Your task to perform on an android device: change keyboard looks Image 0: 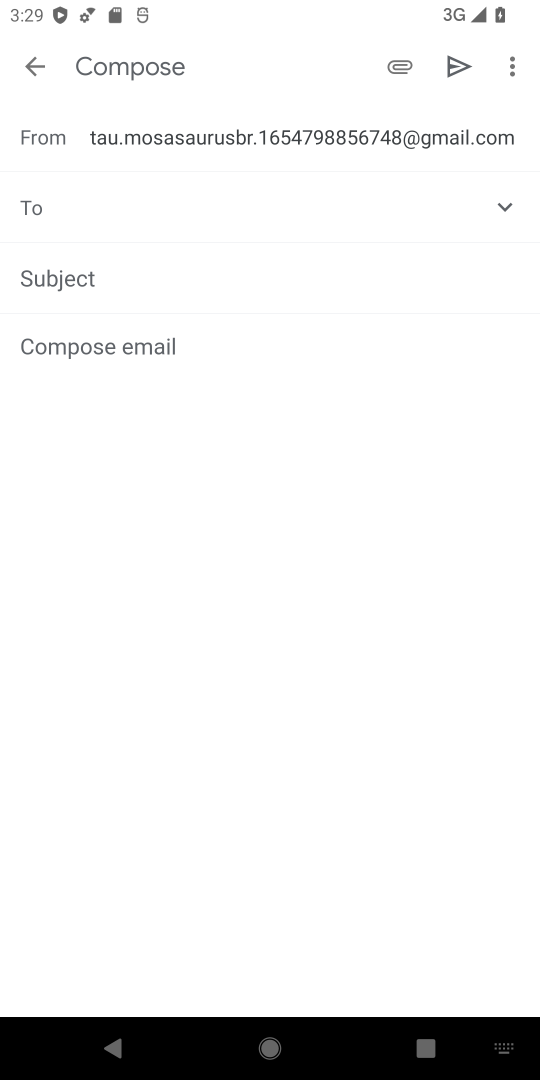
Step 0: press home button
Your task to perform on an android device: change keyboard looks Image 1: 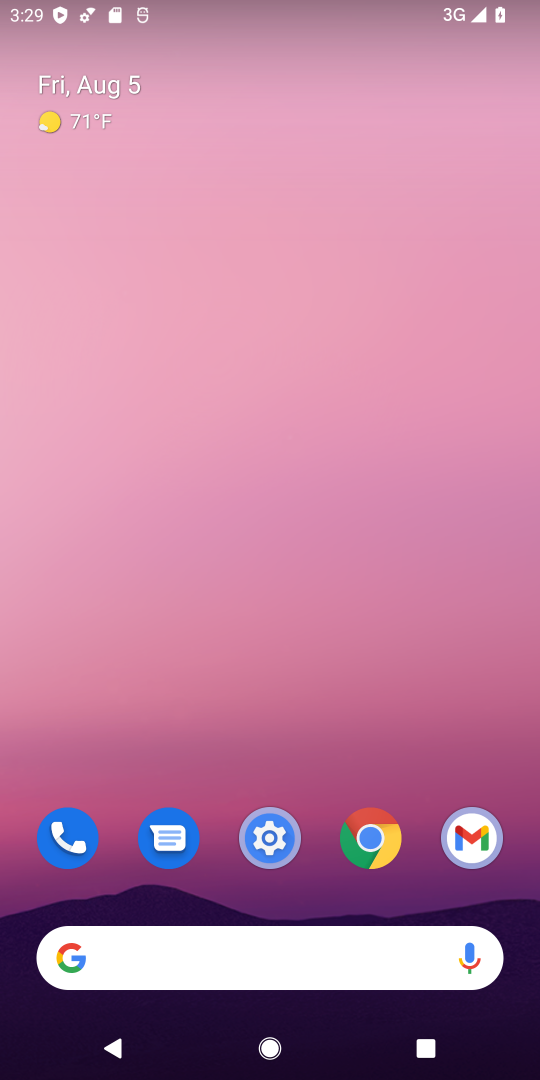
Step 1: drag from (314, 935) to (341, 299)
Your task to perform on an android device: change keyboard looks Image 2: 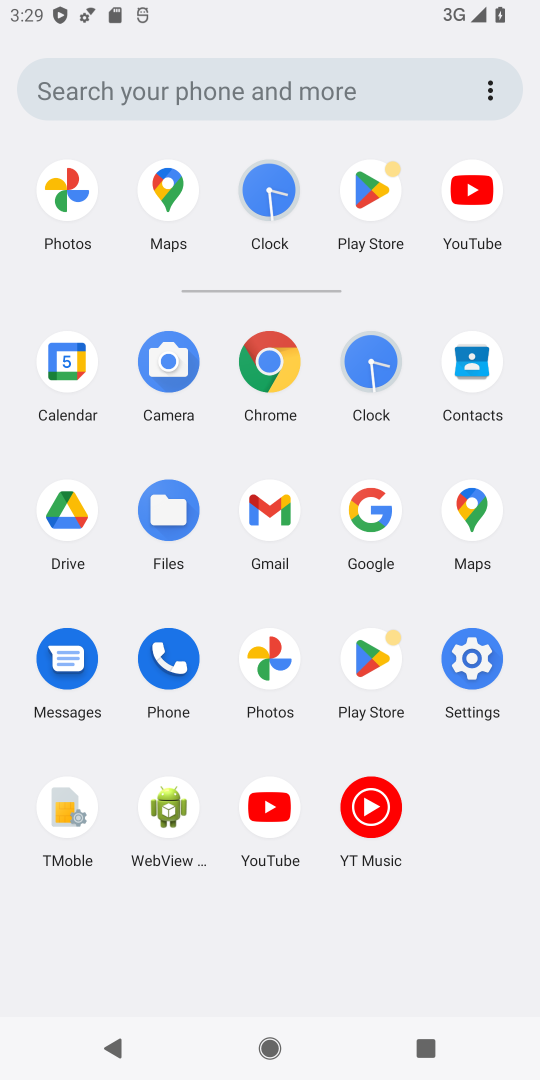
Step 2: click (483, 651)
Your task to perform on an android device: change keyboard looks Image 3: 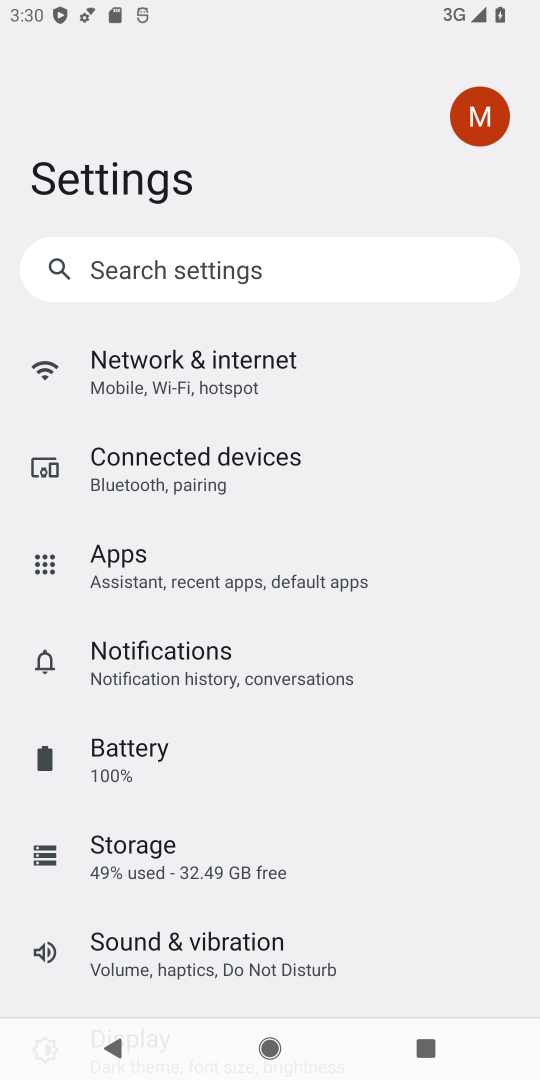
Step 3: drag from (232, 881) to (357, 316)
Your task to perform on an android device: change keyboard looks Image 4: 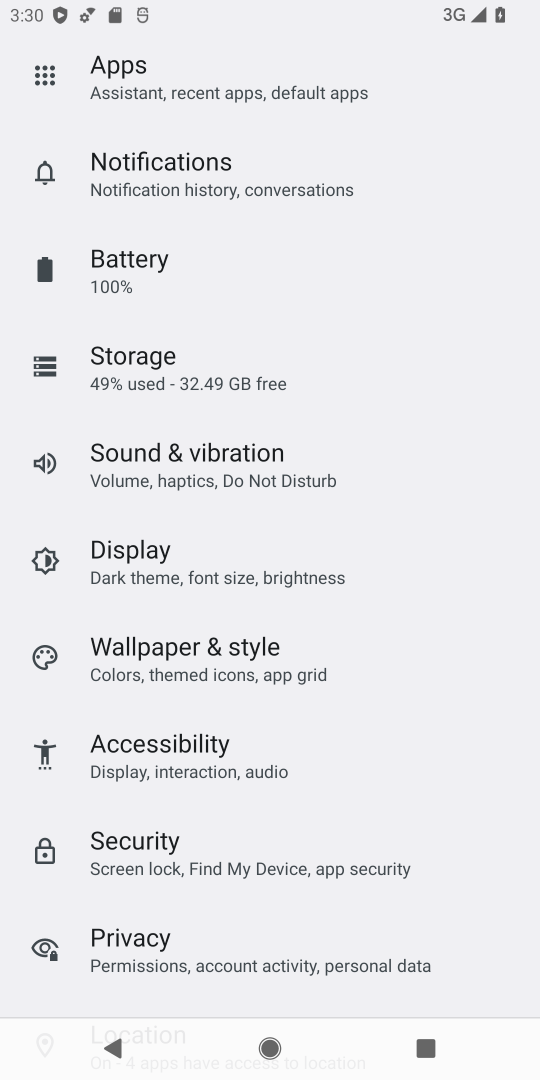
Step 4: drag from (202, 939) to (343, 252)
Your task to perform on an android device: change keyboard looks Image 5: 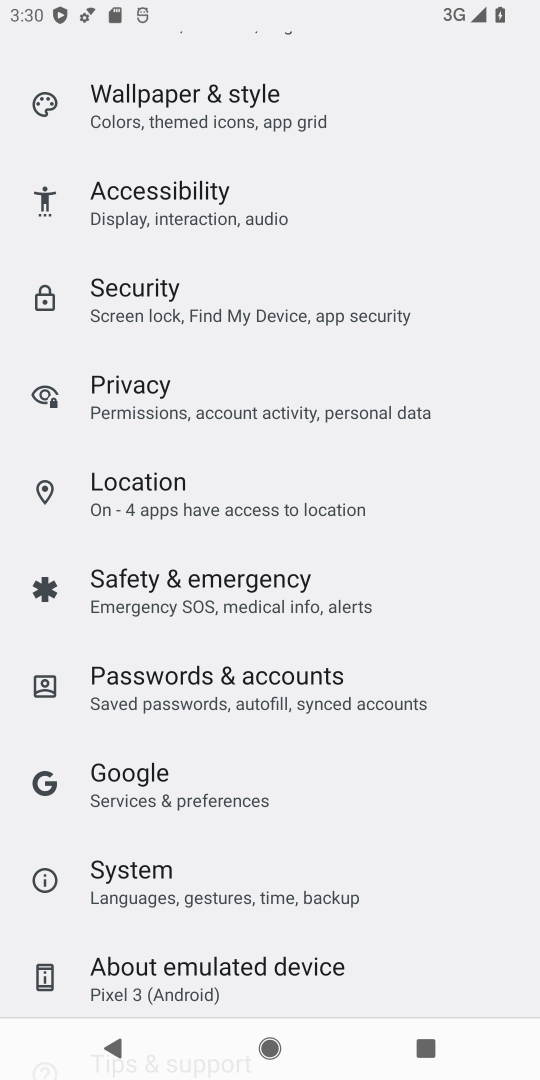
Step 5: click (229, 871)
Your task to perform on an android device: change keyboard looks Image 6: 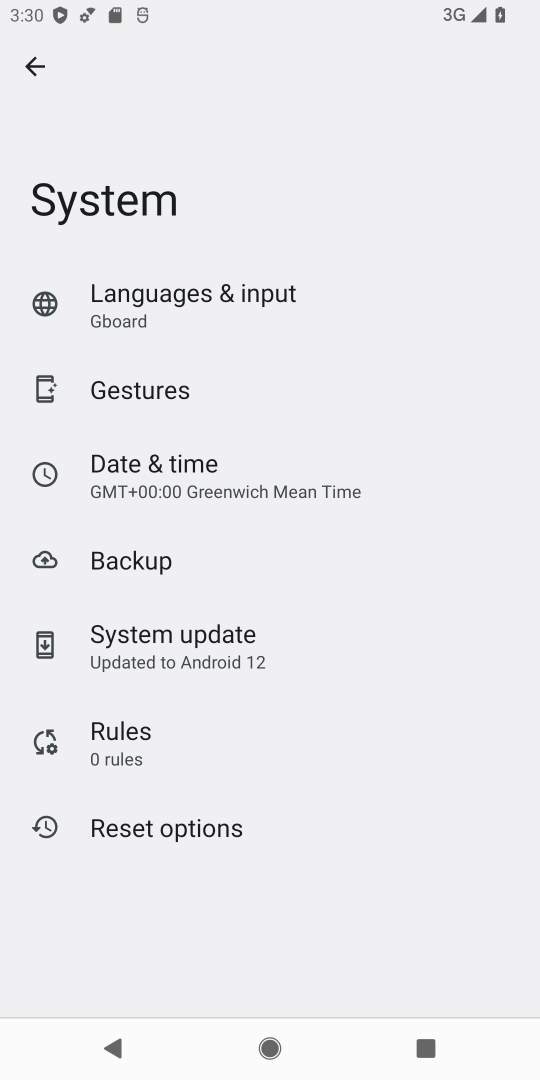
Step 6: click (198, 314)
Your task to perform on an android device: change keyboard looks Image 7: 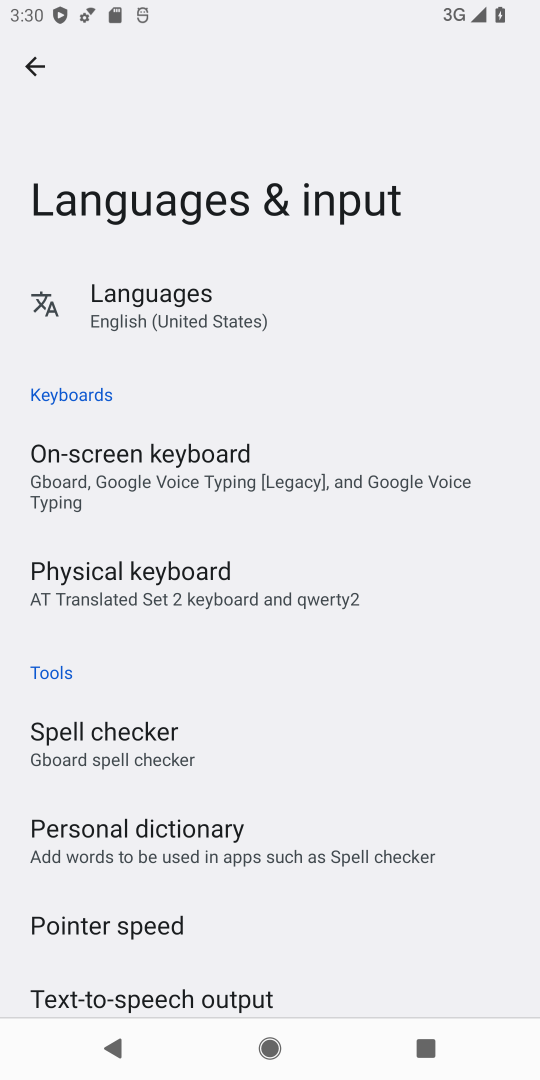
Step 7: click (156, 328)
Your task to perform on an android device: change keyboard looks Image 8: 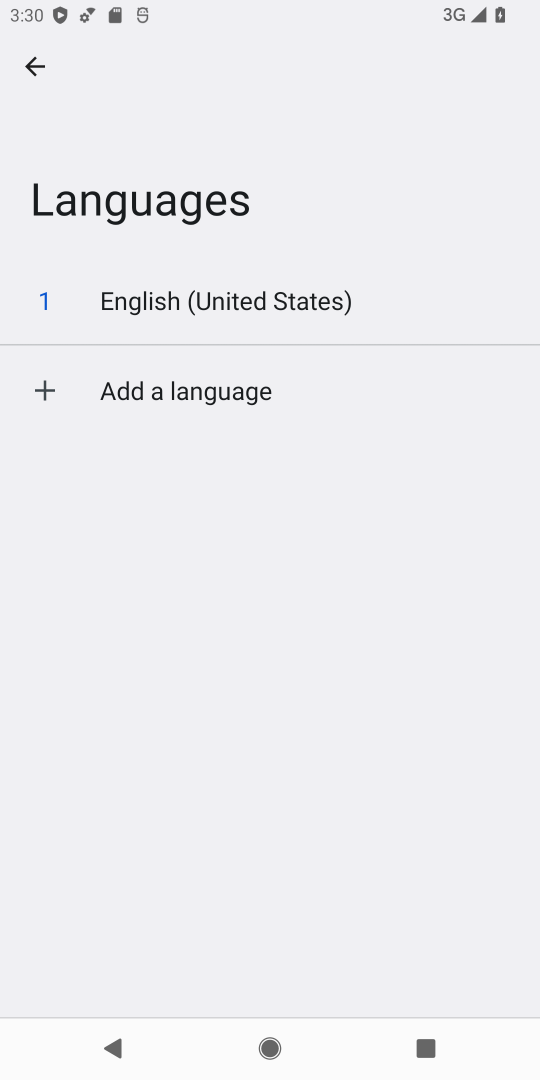
Step 8: click (27, 61)
Your task to perform on an android device: change keyboard looks Image 9: 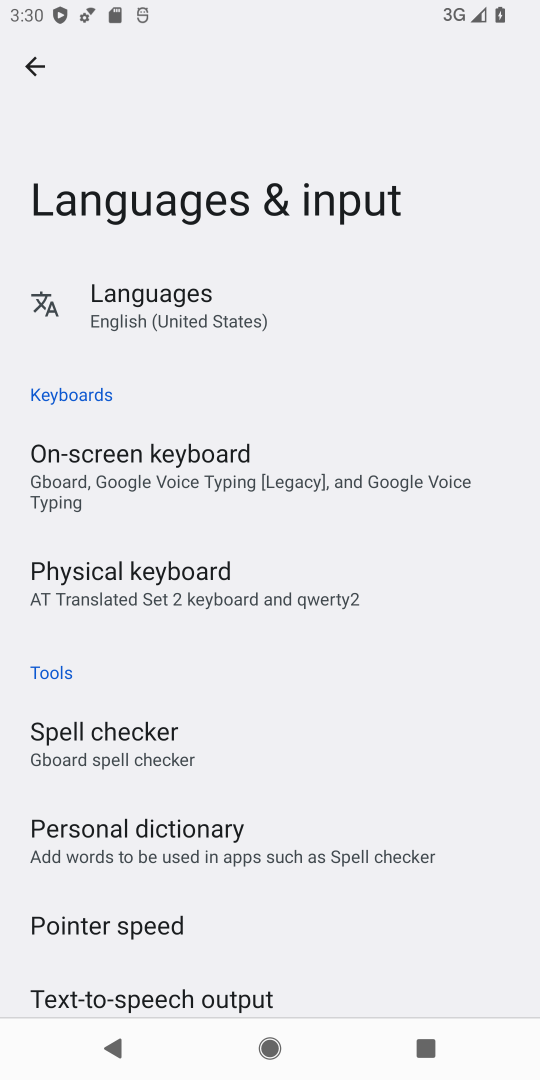
Step 9: click (195, 490)
Your task to perform on an android device: change keyboard looks Image 10: 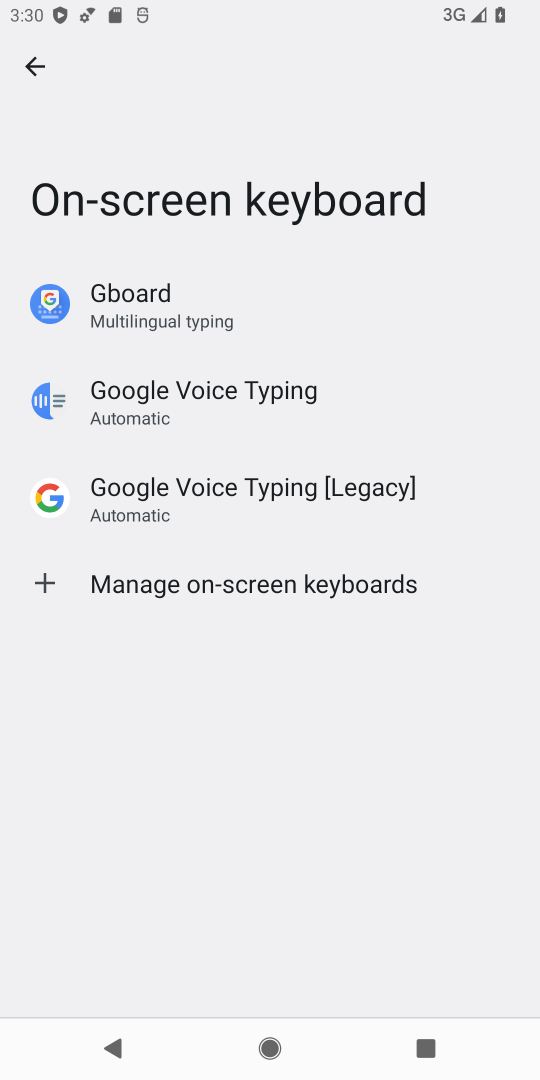
Step 10: click (163, 320)
Your task to perform on an android device: change keyboard looks Image 11: 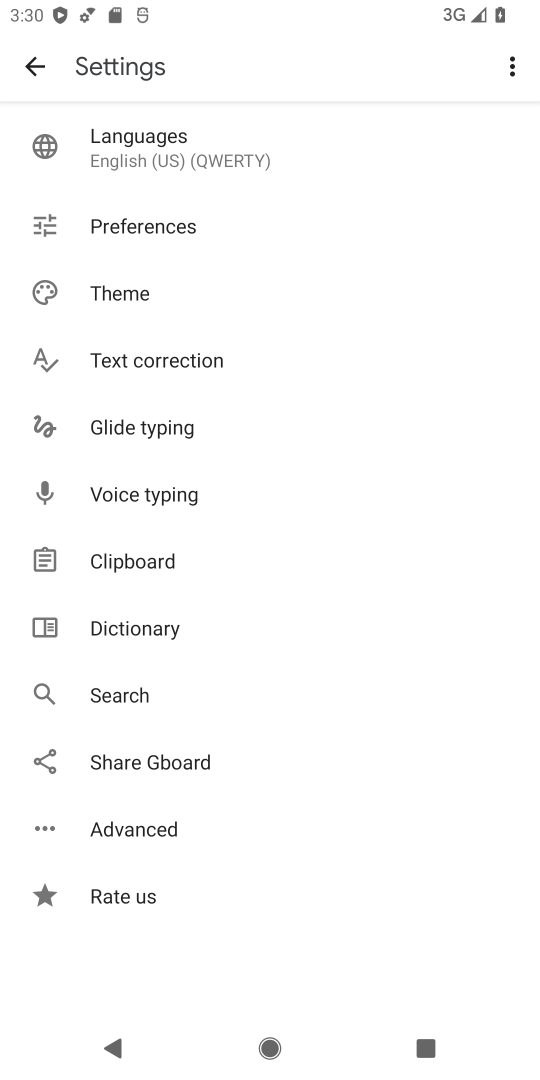
Step 11: click (130, 289)
Your task to perform on an android device: change keyboard looks Image 12: 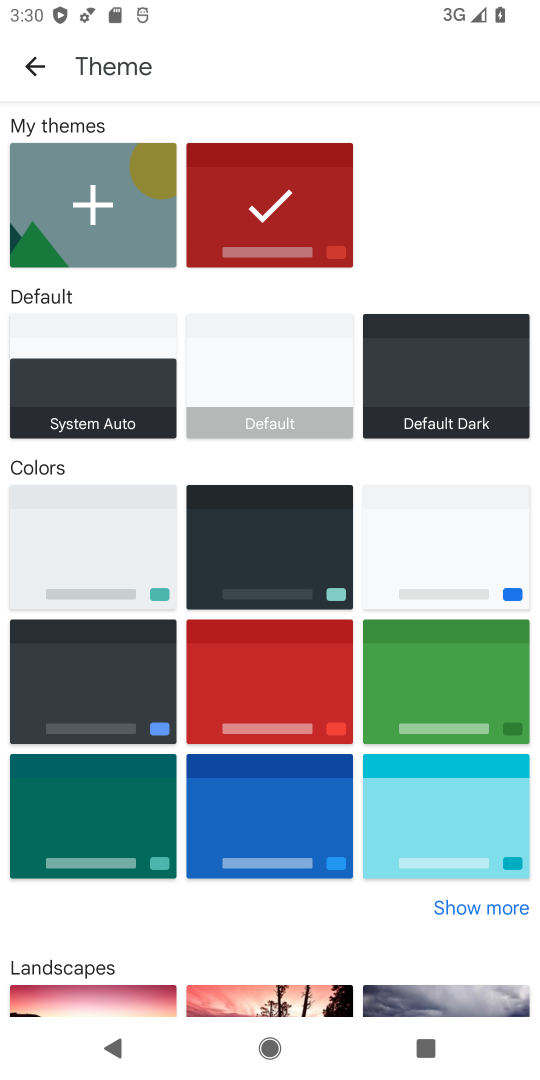
Step 12: click (264, 836)
Your task to perform on an android device: change keyboard looks Image 13: 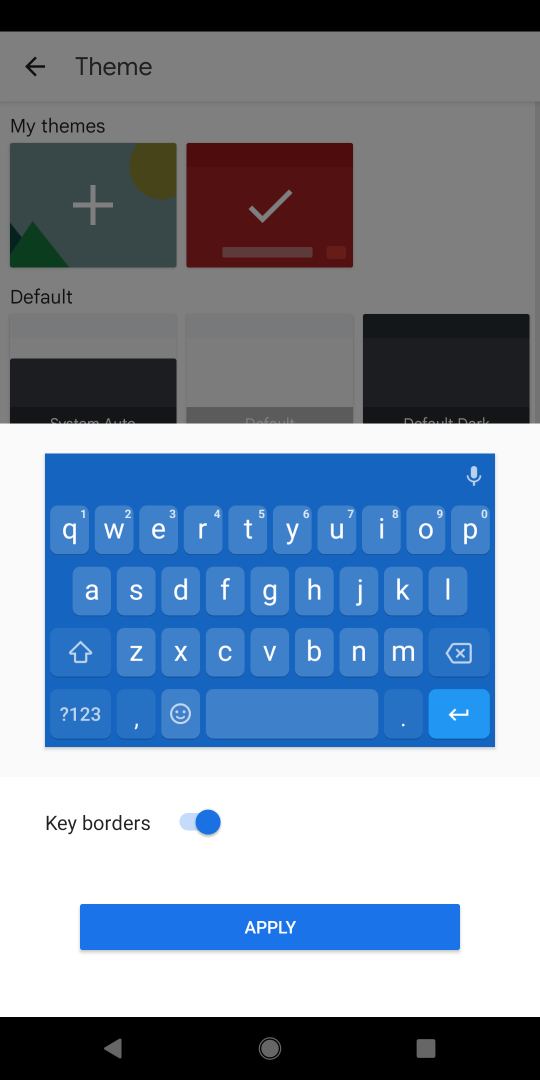
Step 13: click (308, 931)
Your task to perform on an android device: change keyboard looks Image 14: 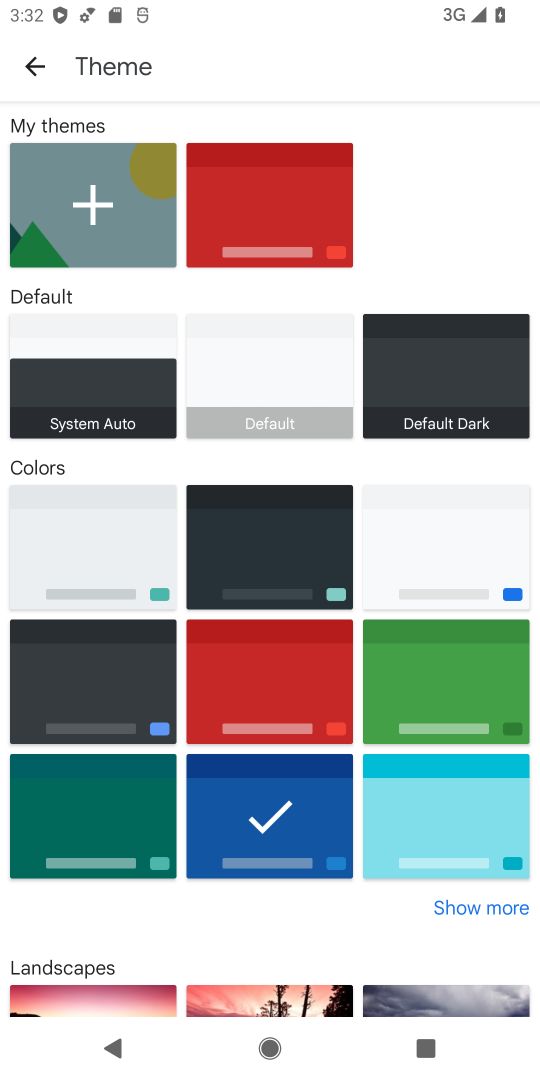
Step 14: task complete